Your task to perform on an android device: Open Amazon Image 0: 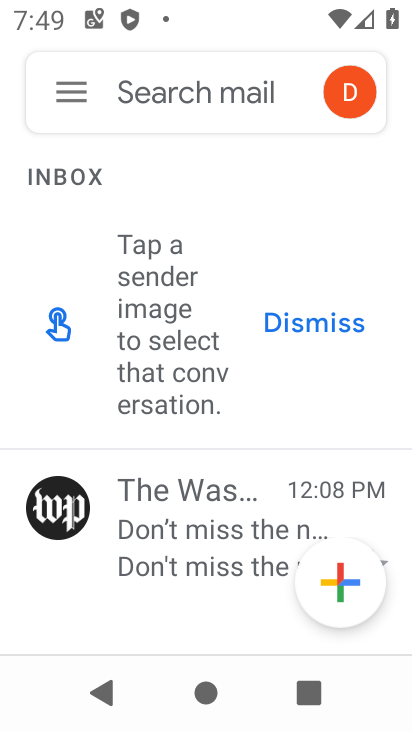
Step 0: press home button
Your task to perform on an android device: Open Amazon Image 1: 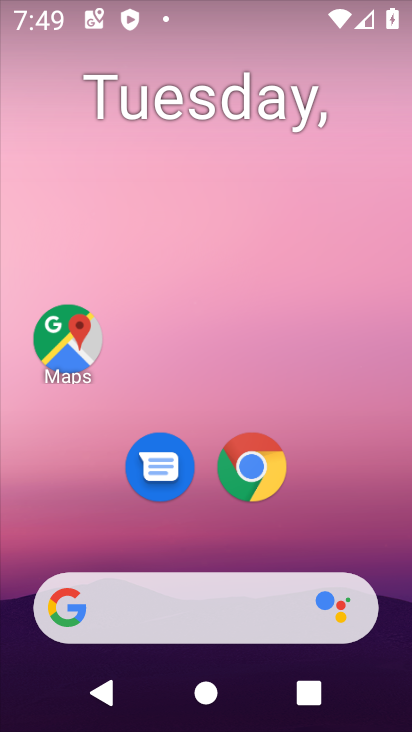
Step 1: click (254, 455)
Your task to perform on an android device: Open Amazon Image 2: 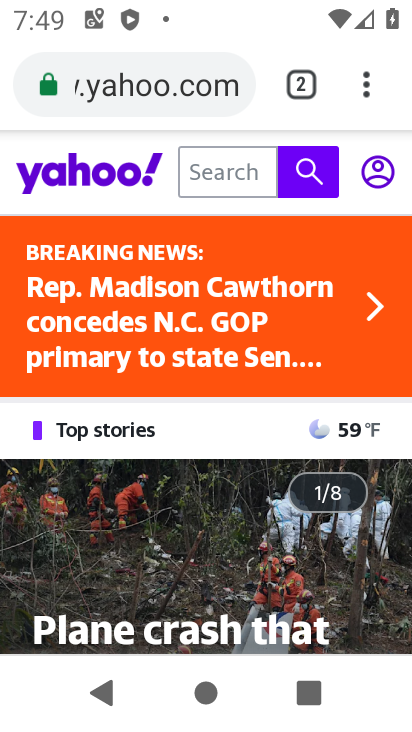
Step 2: click (370, 100)
Your task to perform on an android device: Open Amazon Image 3: 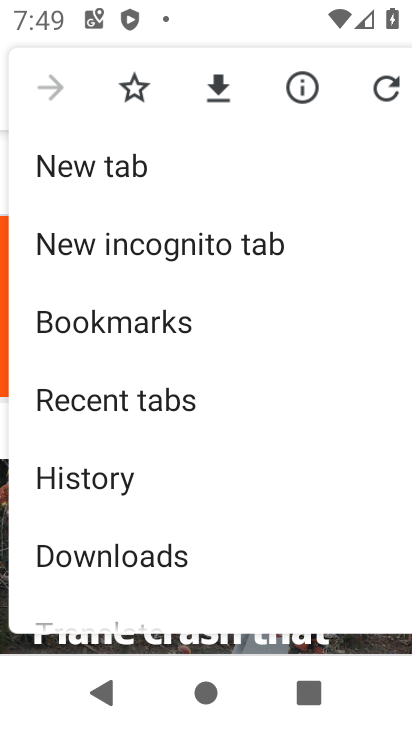
Step 3: click (152, 174)
Your task to perform on an android device: Open Amazon Image 4: 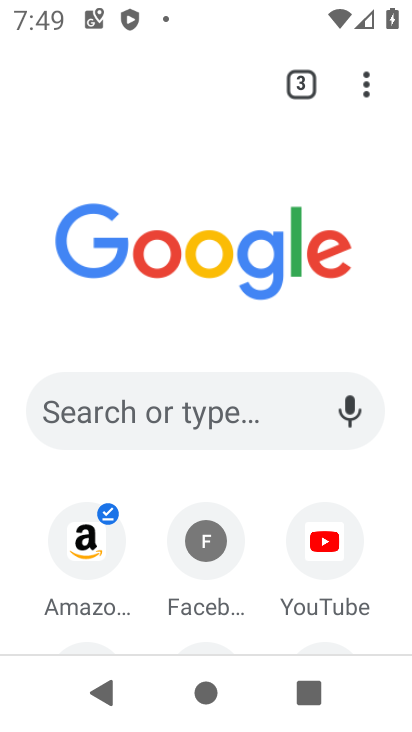
Step 4: click (91, 525)
Your task to perform on an android device: Open Amazon Image 5: 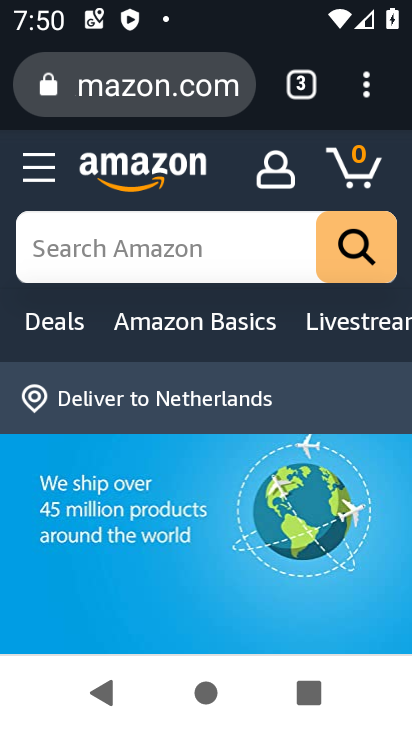
Step 5: task complete